Your task to perform on an android device: Open Google Maps Image 0: 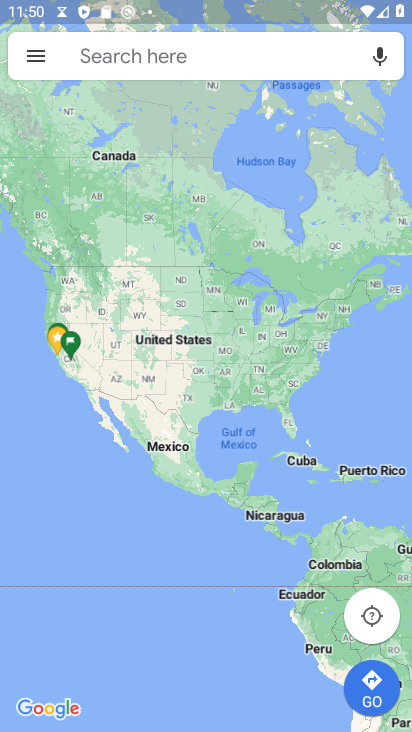
Step 0: task complete